Your task to perform on an android device: set the timer Image 0: 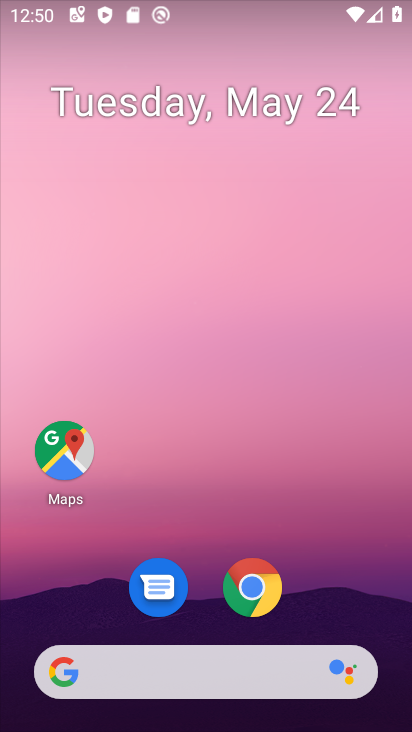
Step 0: drag from (367, 577) to (317, 301)
Your task to perform on an android device: set the timer Image 1: 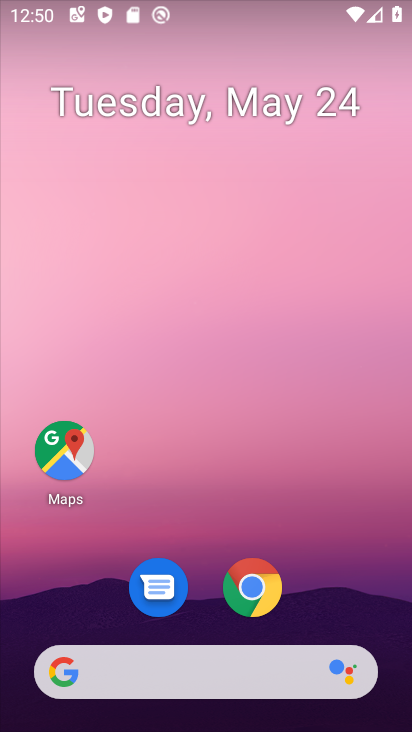
Step 1: drag from (330, 567) to (222, 32)
Your task to perform on an android device: set the timer Image 2: 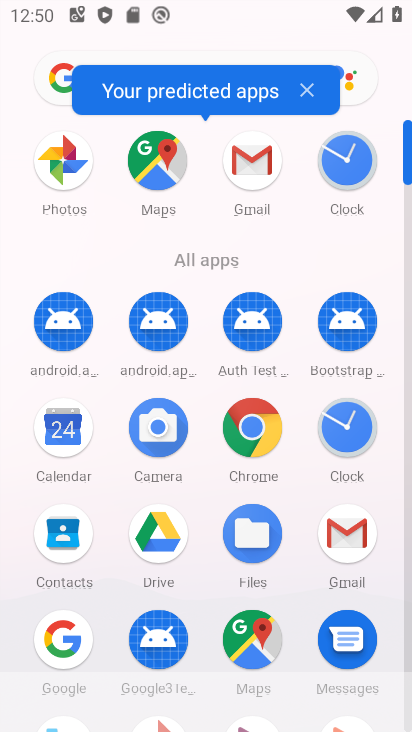
Step 2: click (361, 168)
Your task to perform on an android device: set the timer Image 3: 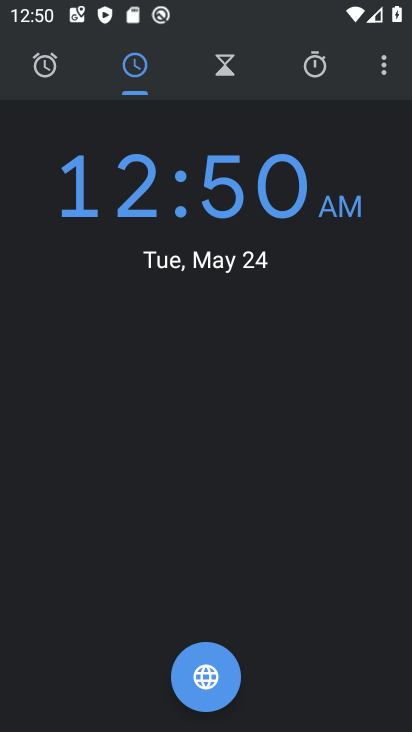
Step 3: click (235, 90)
Your task to perform on an android device: set the timer Image 4: 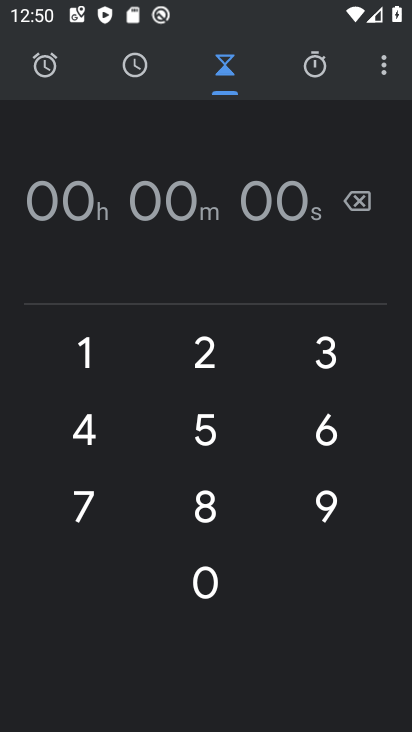
Step 4: task complete